Your task to perform on an android device: clear history in the chrome app Image 0: 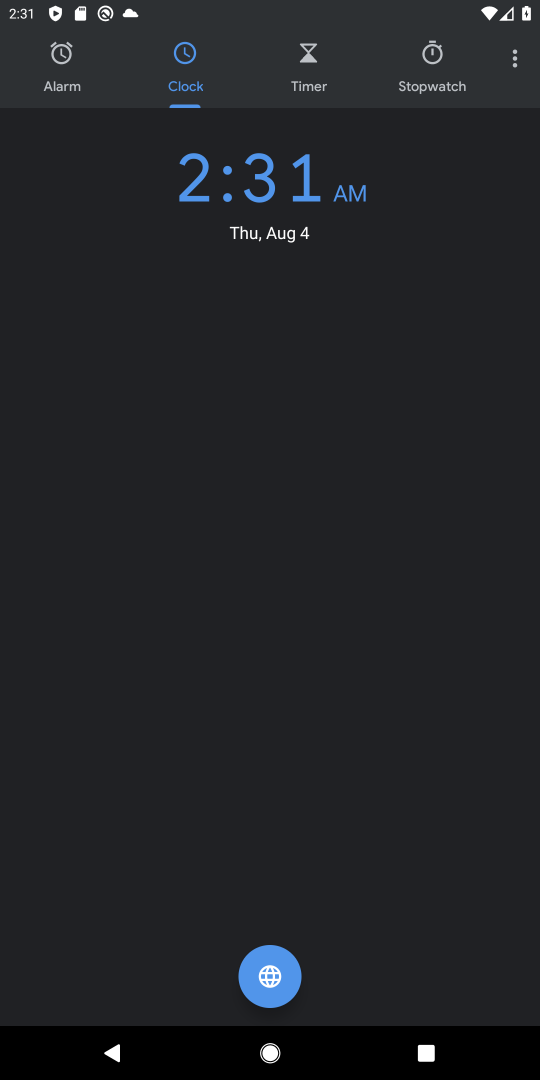
Step 0: task complete